Your task to perform on an android device: refresh tabs in the chrome app Image 0: 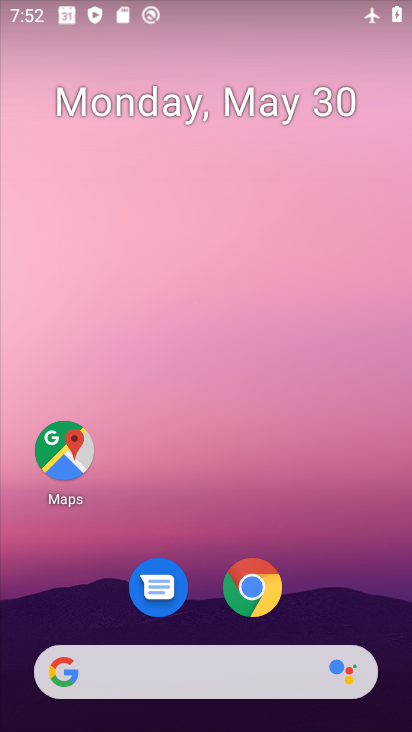
Step 0: drag from (341, 583) to (222, 4)
Your task to perform on an android device: refresh tabs in the chrome app Image 1: 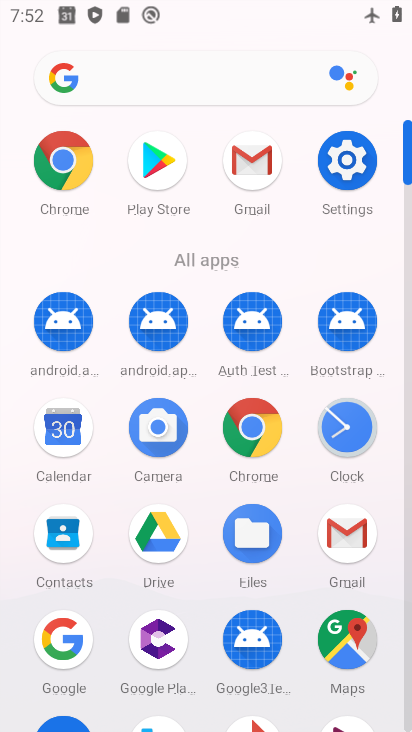
Step 1: click (65, 157)
Your task to perform on an android device: refresh tabs in the chrome app Image 2: 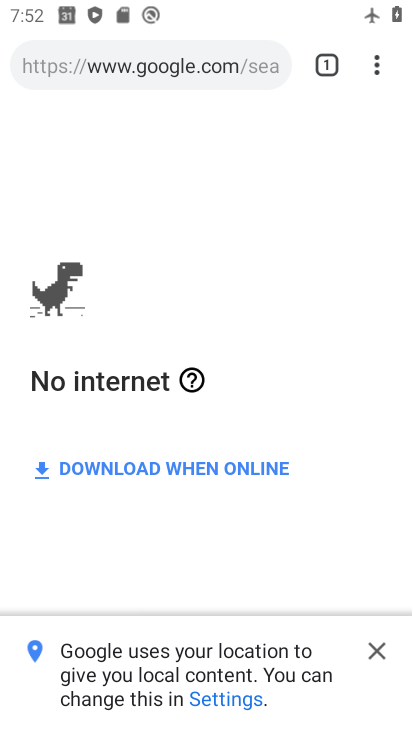
Step 2: click (378, 65)
Your task to perform on an android device: refresh tabs in the chrome app Image 3: 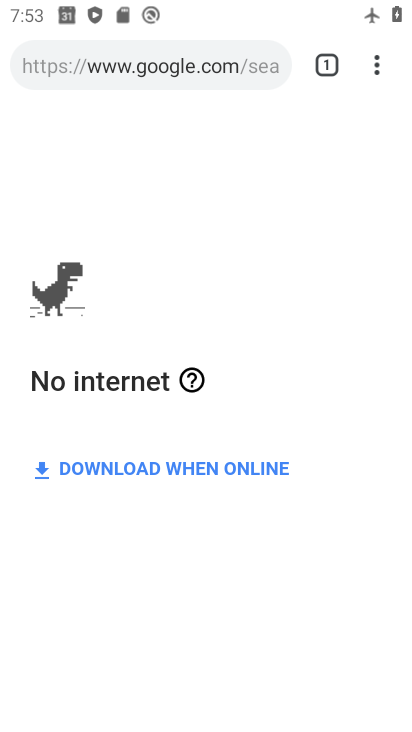
Step 3: task complete